Your task to perform on an android device: When is my next meeting? Image 0: 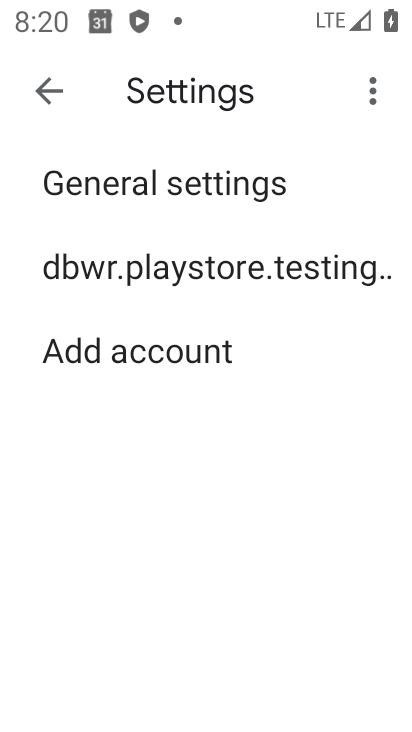
Step 0: press home button
Your task to perform on an android device: When is my next meeting? Image 1: 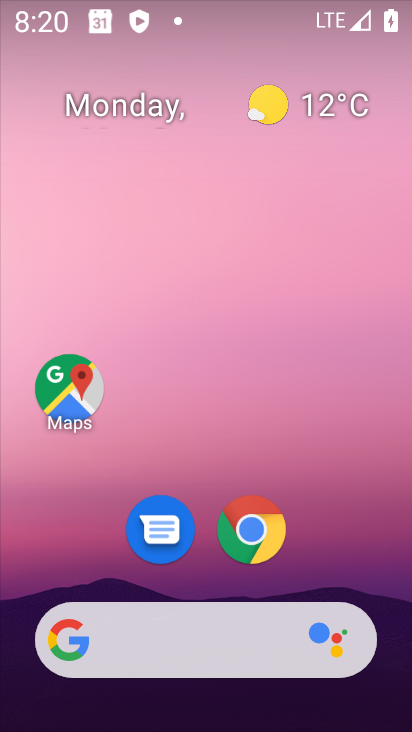
Step 1: drag from (242, 621) to (235, 110)
Your task to perform on an android device: When is my next meeting? Image 2: 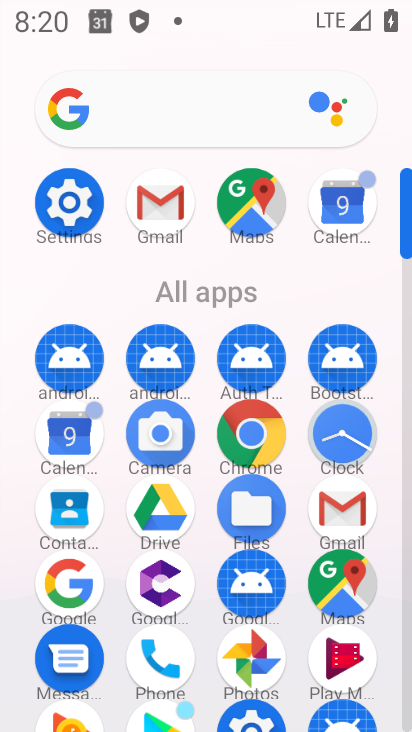
Step 2: click (80, 424)
Your task to perform on an android device: When is my next meeting? Image 3: 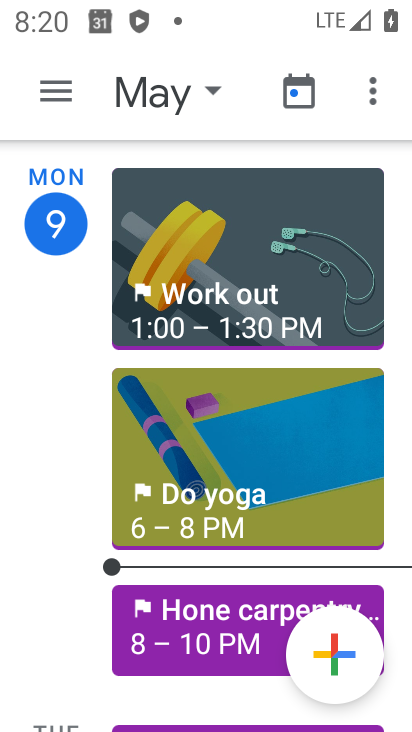
Step 3: task complete